Your task to perform on an android device: Show me the alarms in the clock app Image 0: 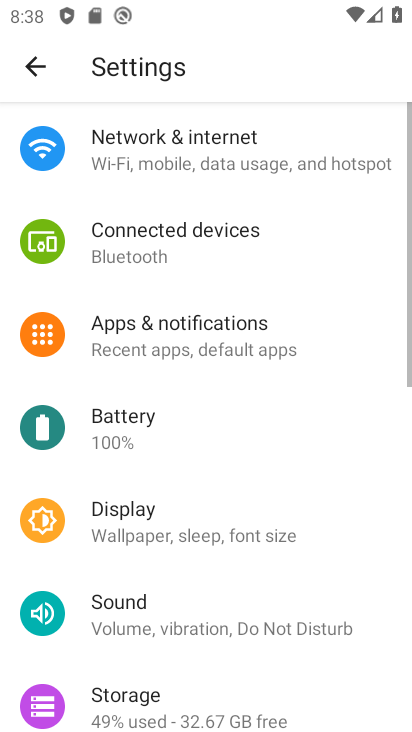
Step 0: press home button
Your task to perform on an android device: Show me the alarms in the clock app Image 1: 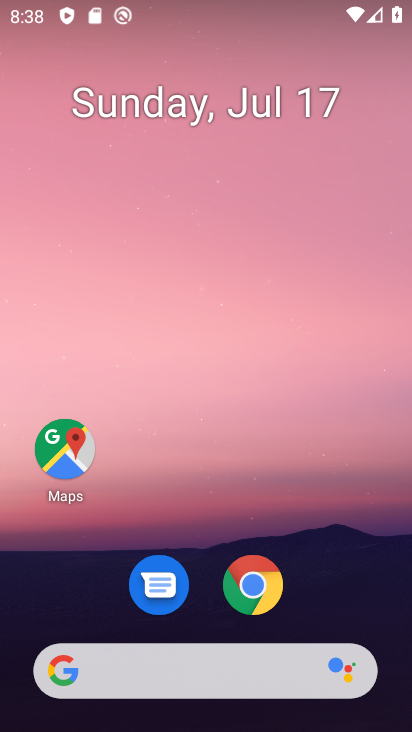
Step 1: drag from (215, 635) to (253, 172)
Your task to perform on an android device: Show me the alarms in the clock app Image 2: 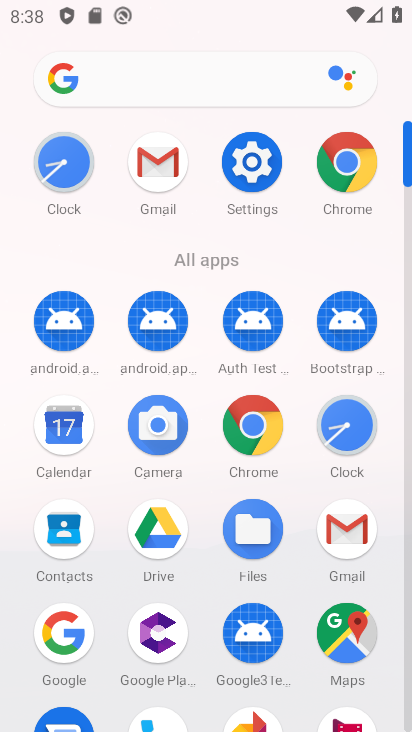
Step 2: click (351, 423)
Your task to perform on an android device: Show me the alarms in the clock app Image 3: 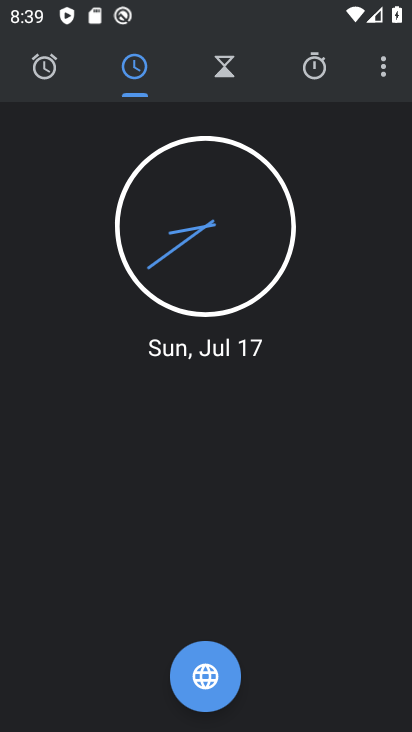
Step 3: click (48, 71)
Your task to perform on an android device: Show me the alarms in the clock app Image 4: 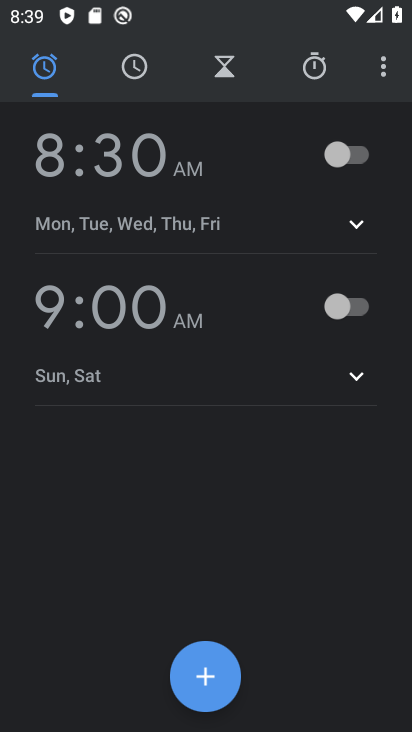
Step 4: task complete